Your task to perform on an android device: Open settings on Google Maps Image 0: 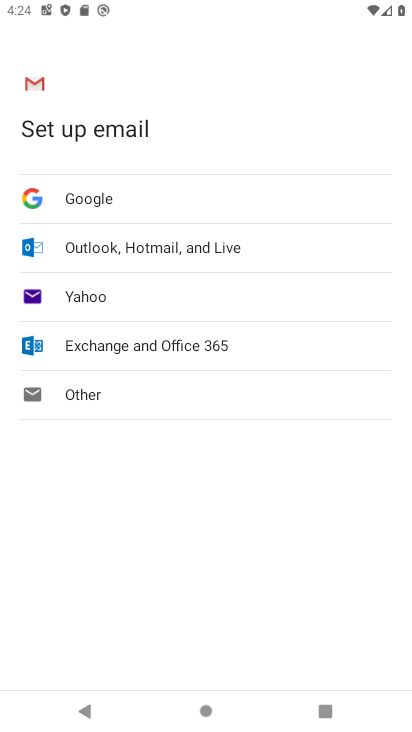
Step 0: press home button
Your task to perform on an android device: Open settings on Google Maps Image 1: 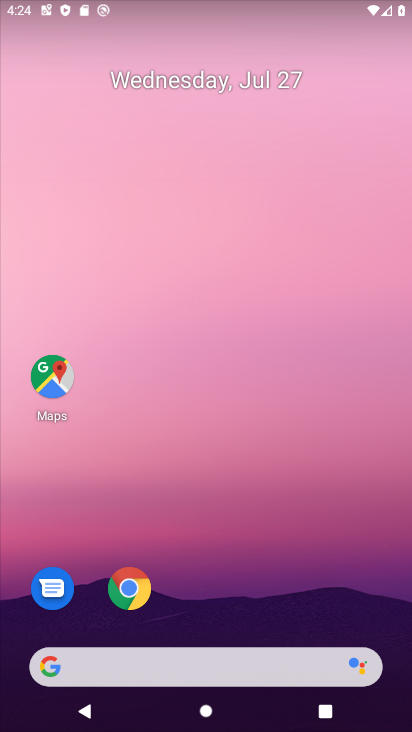
Step 1: drag from (234, 715) to (230, 193)
Your task to perform on an android device: Open settings on Google Maps Image 2: 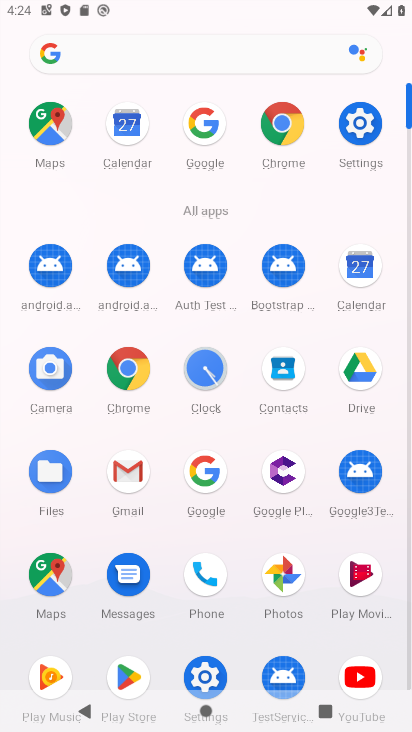
Step 2: click (52, 578)
Your task to perform on an android device: Open settings on Google Maps Image 3: 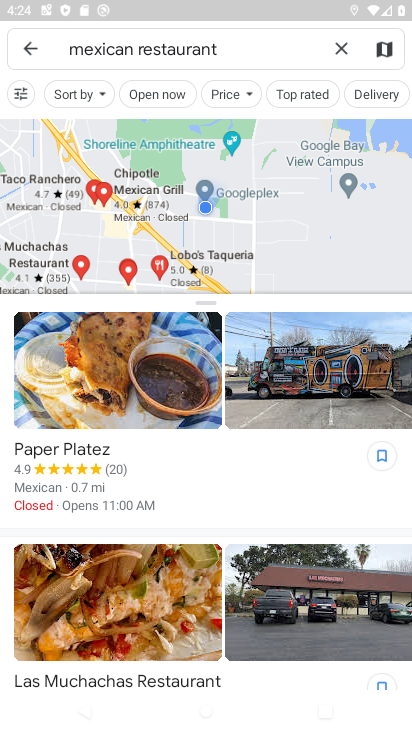
Step 3: click (29, 47)
Your task to perform on an android device: Open settings on Google Maps Image 4: 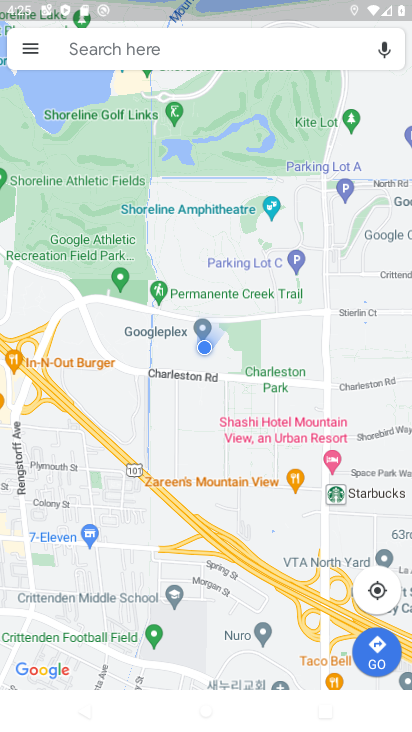
Step 4: click (23, 45)
Your task to perform on an android device: Open settings on Google Maps Image 5: 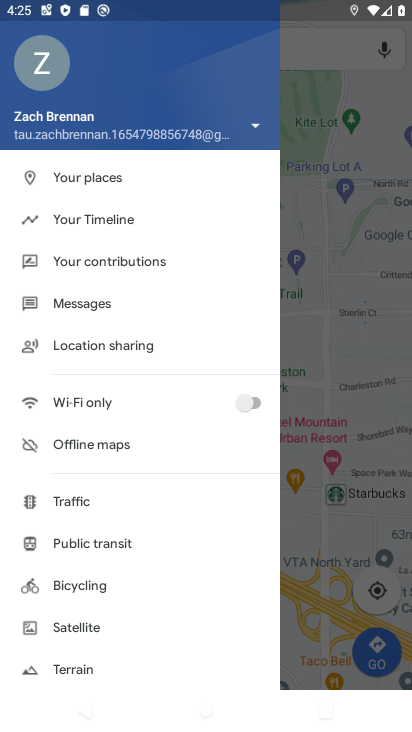
Step 5: drag from (91, 650) to (91, 357)
Your task to perform on an android device: Open settings on Google Maps Image 6: 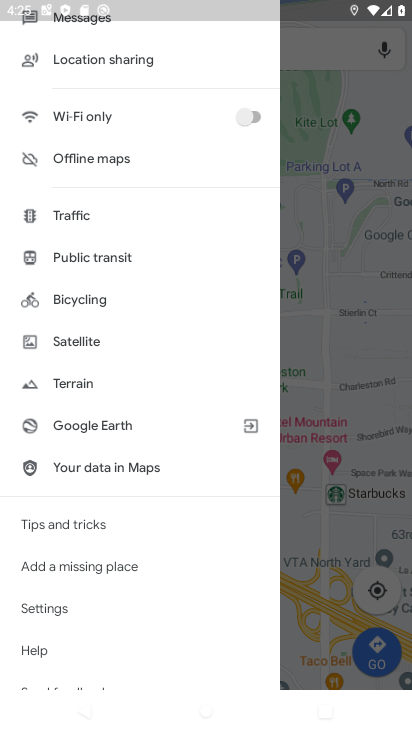
Step 6: click (59, 606)
Your task to perform on an android device: Open settings on Google Maps Image 7: 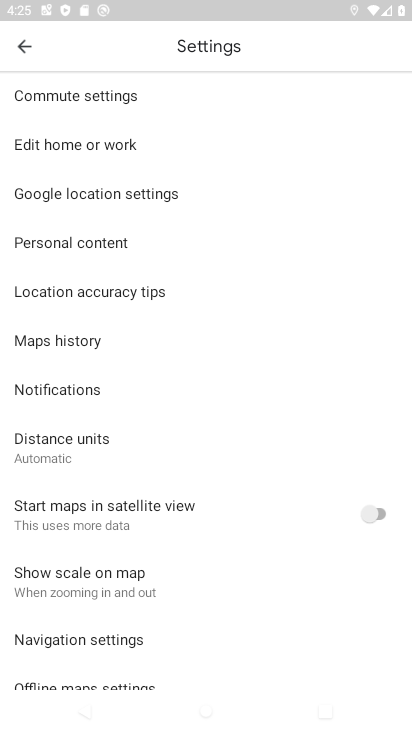
Step 7: task complete